Your task to perform on an android device: Find coffee shops on Maps Image 0: 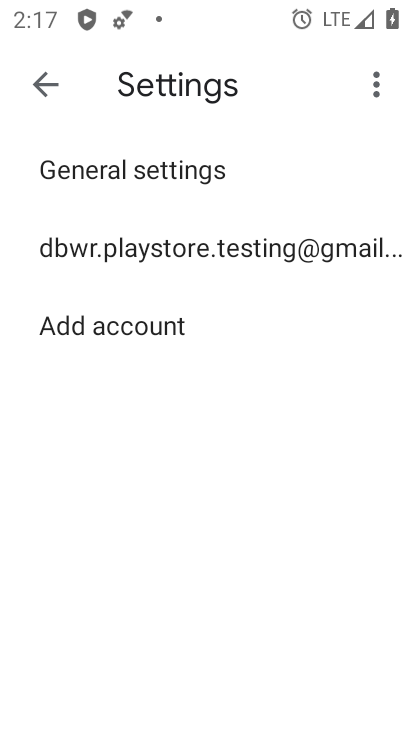
Step 0: press back button
Your task to perform on an android device: Find coffee shops on Maps Image 1: 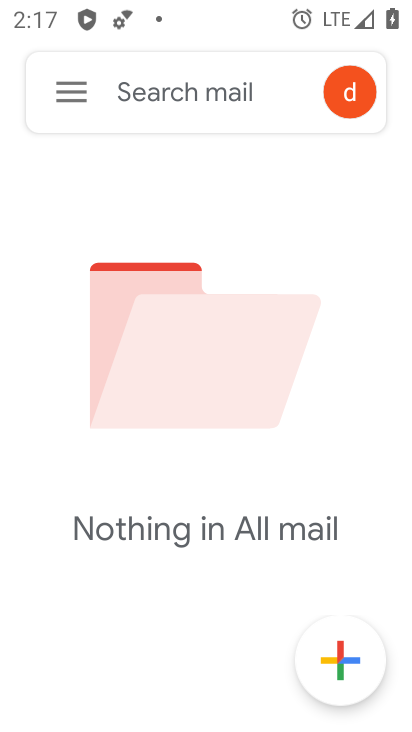
Step 1: press home button
Your task to perform on an android device: Find coffee shops on Maps Image 2: 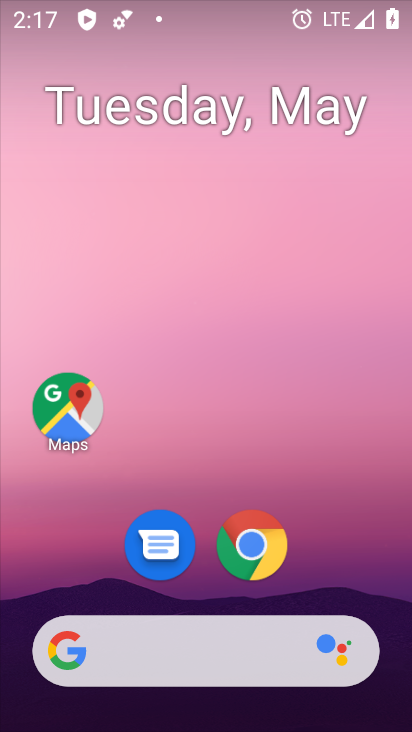
Step 2: drag from (326, 568) to (324, 25)
Your task to perform on an android device: Find coffee shops on Maps Image 3: 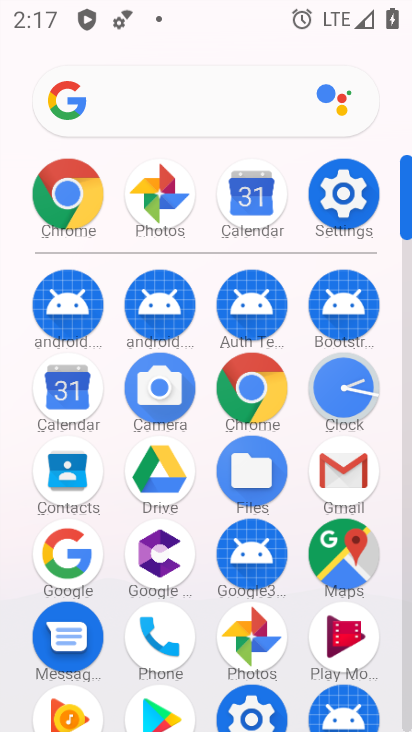
Step 3: drag from (8, 609) to (0, 252)
Your task to perform on an android device: Find coffee shops on Maps Image 4: 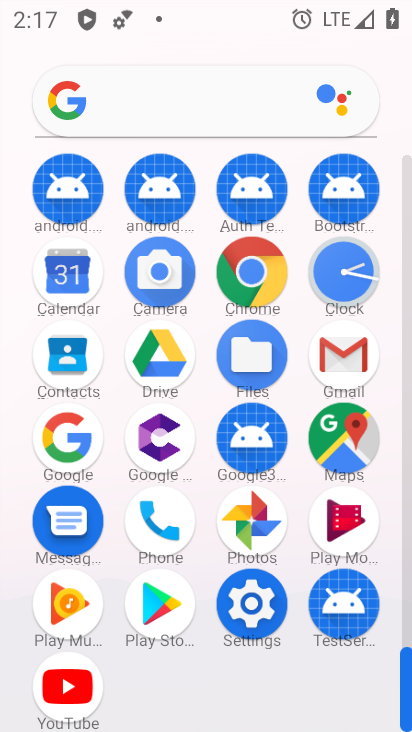
Step 4: click (348, 431)
Your task to perform on an android device: Find coffee shops on Maps Image 5: 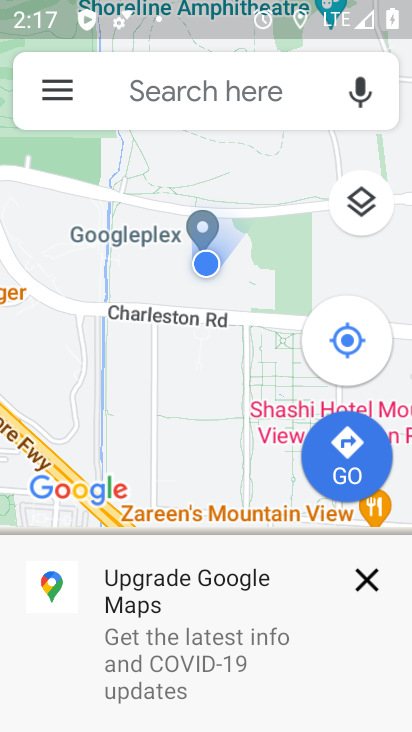
Step 5: click (303, 86)
Your task to perform on an android device: Find coffee shops on Maps Image 6: 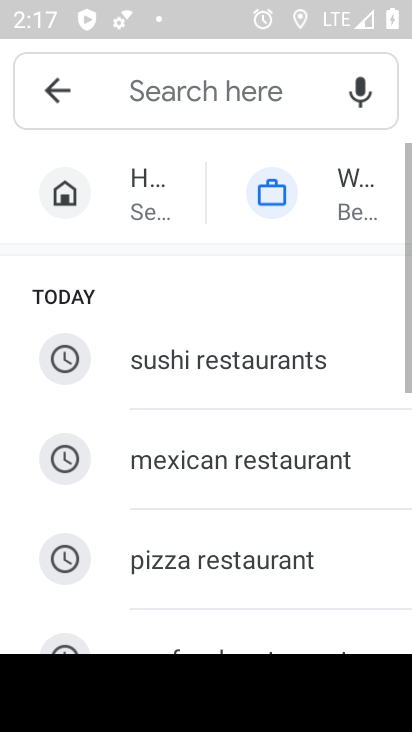
Step 6: drag from (216, 531) to (221, 250)
Your task to perform on an android device: Find coffee shops on Maps Image 7: 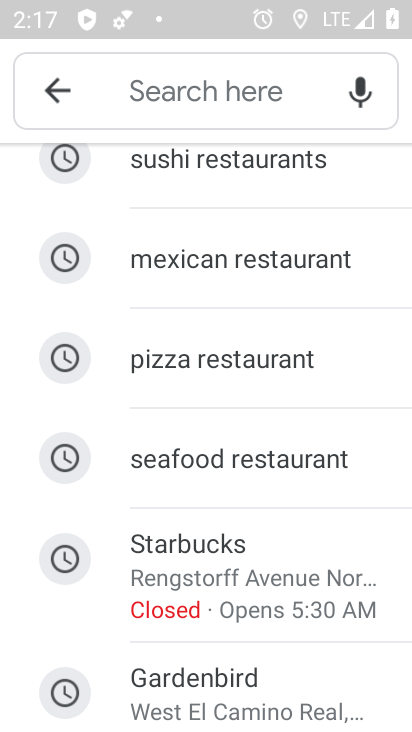
Step 7: drag from (251, 657) to (244, 196)
Your task to perform on an android device: Find coffee shops on Maps Image 8: 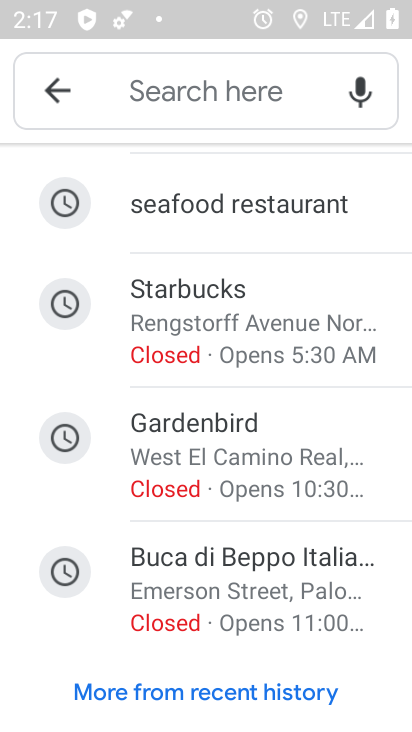
Step 8: drag from (250, 253) to (334, 666)
Your task to perform on an android device: Find coffee shops on Maps Image 9: 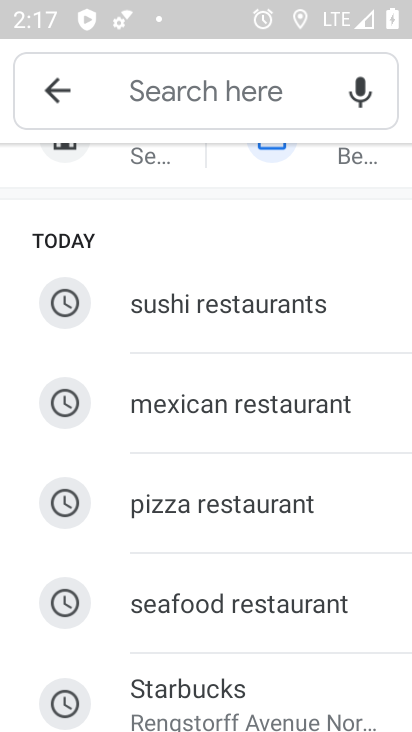
Step 9: drag from (284, 308) to (320, 625)
Your task to perform on an android device: Find coffee shops on Maps Image 10: 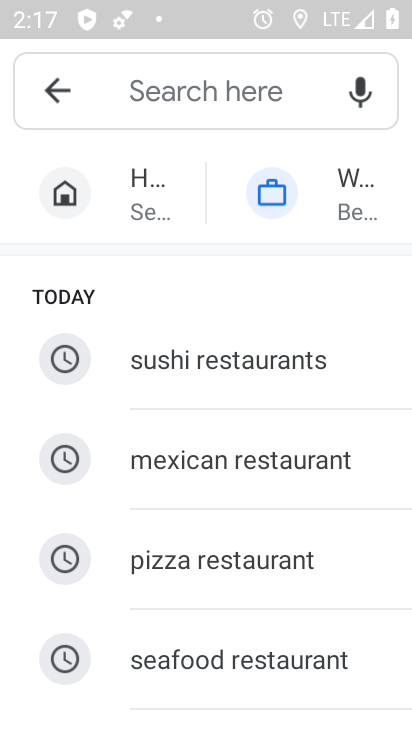
Step 10: click (195, 83)
Your task to perform on an android device: Find coffee shops on Maps Image 11: 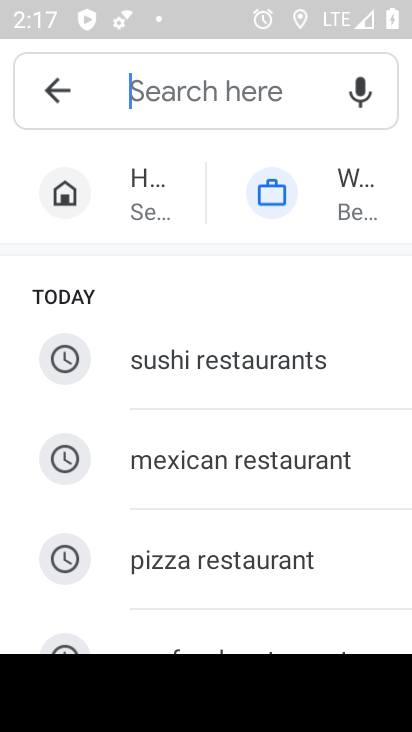
Step 11: type "coffee "
Your task to perform on an android device: Find coffee shops on Maps Image 12: 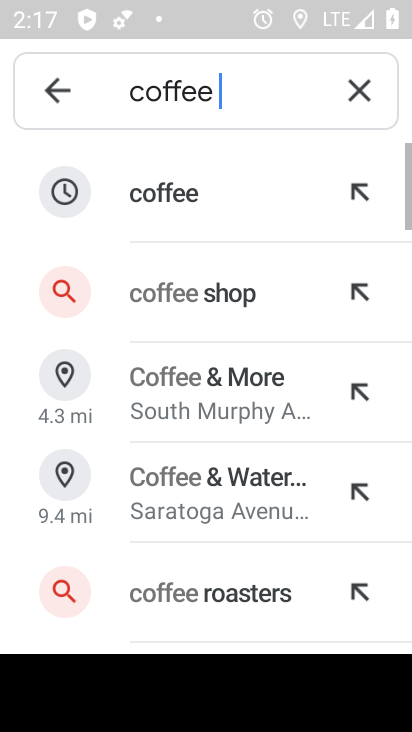
Step 12: click (187, 195)
Your task to perform on an android device: Find coffee shops on Maps Image 13: 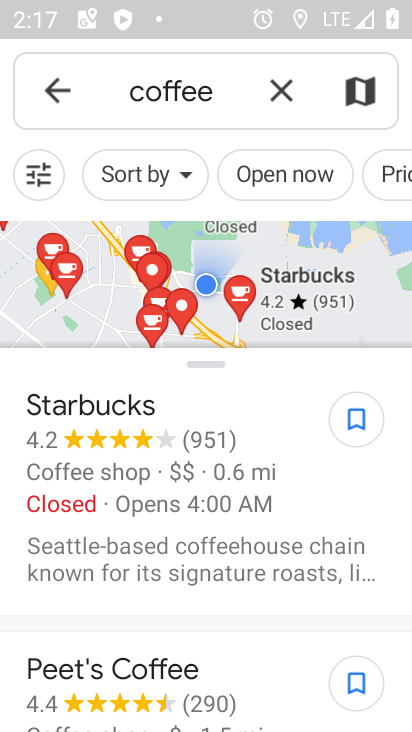
Step 13: task complete